Your task to perform on an android device: turn on showing notifications on the lock screen Image 0: 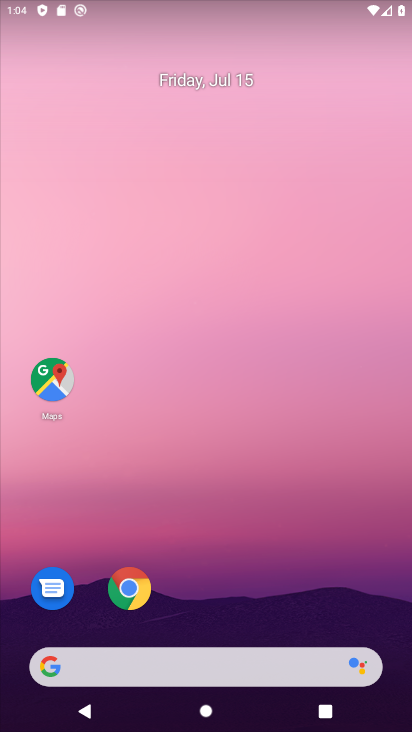
Step 0: drag from (250, 584) to (280, 96)
Your task to perform on an android device: turn on showing notifications on the lock screen Image 1: 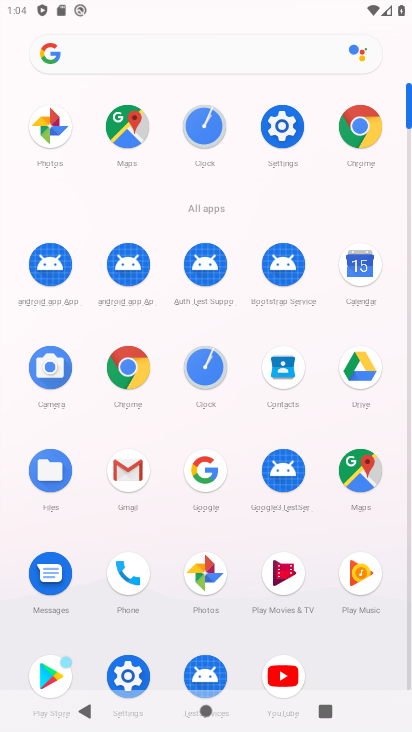
Step 1: click (284, 113)
Your task to perform on an android device: turn on showing notifications on the lock screen Image 2: 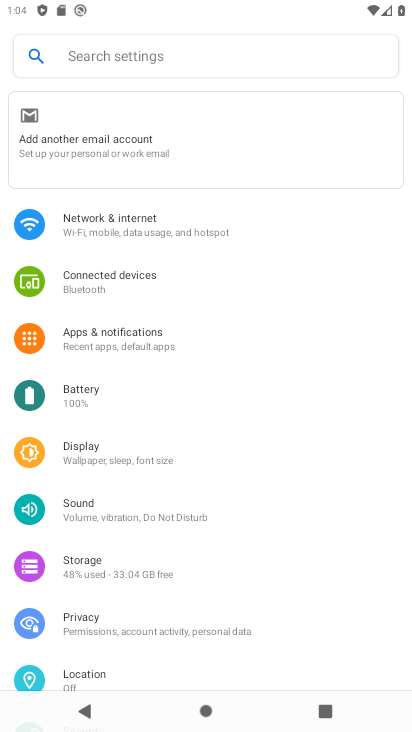
Step 2: click (136, 334)
Your task to perform on an android device: turn on showing notifications on the lock screen Image 3: 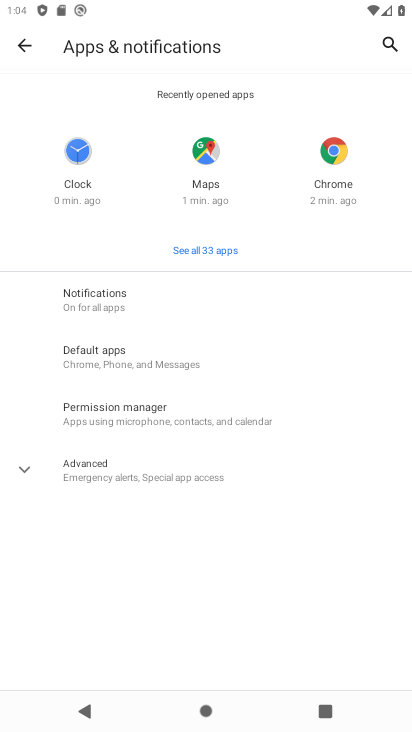
Step 3: click (131, 307)
Your task to perform on an android device: turn on showing notifications on the lock screen Image 4: 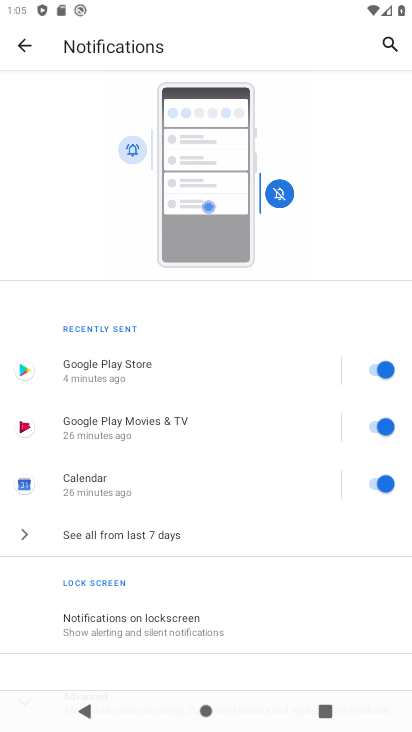
Step 4: click (189, 634)
Your task to perform on an android device: turn on showing notifications on the lock screen Image 5: 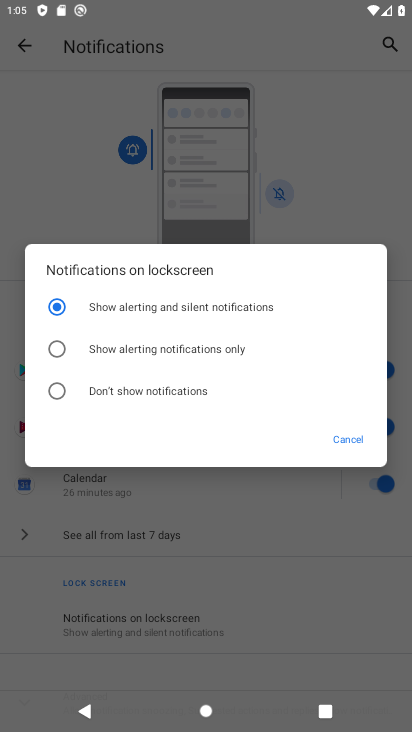
Step 5: click (249, 309)
Your task to perform on an android device: turn on showing notifications on the lock screen Image 6: 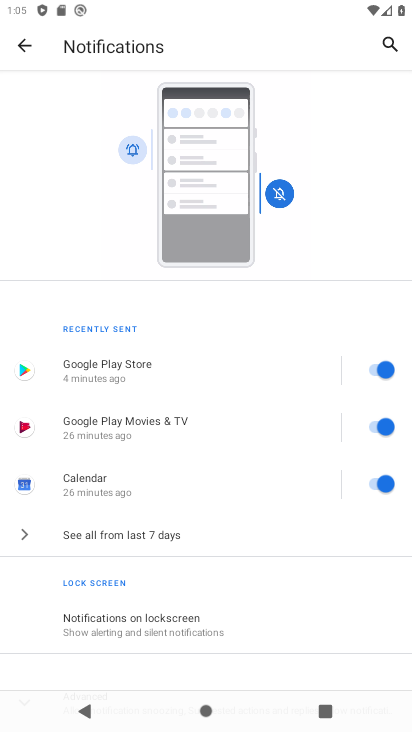
Step 6: task complete